Your task to perform on an android device: allow notifications from all sites in the chrome app Image 0: 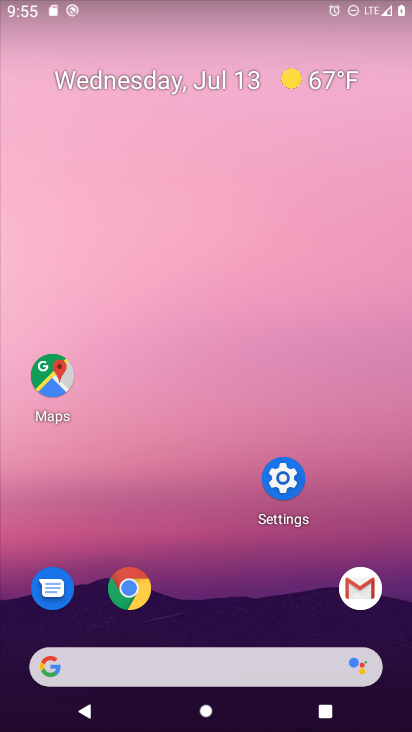
Step 0: click (130, 585)
Your task to perform on an android device: allow notifications from all sites in the chrome app Image 1: 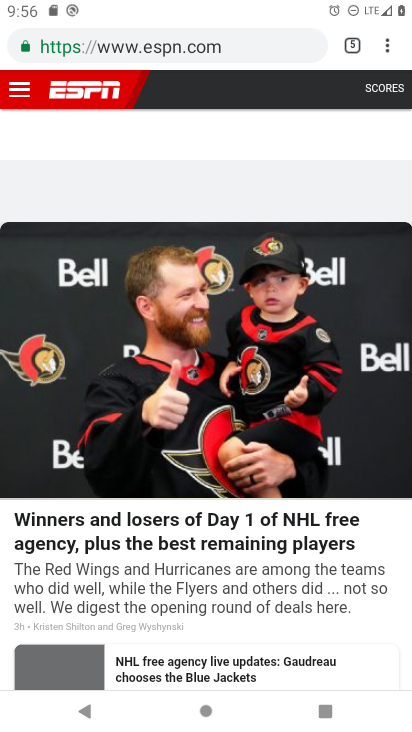
Step 1: click (384, 49)
Your task to perform on an android device: allow notifications from all sites in the chrome app Image 2: 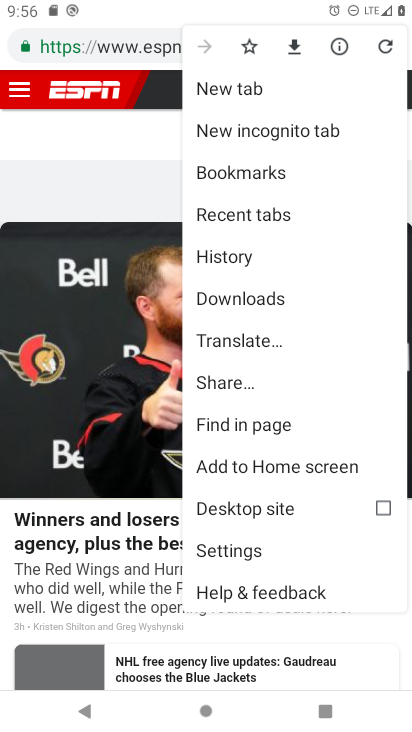
Step 2: click (237, 550)
Your task to perform on an android device: allow notifications from all sites in the chrome app Image 3: 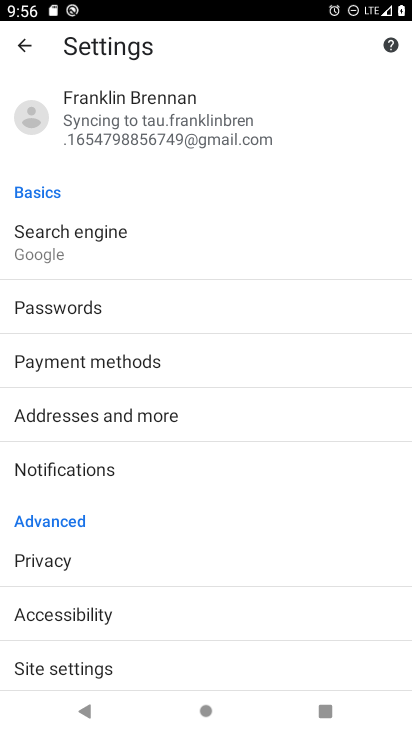
Step 3: click (52, 663)
Your task to perform on an android device: allow notifications from all sites in the chrome app Image 4: 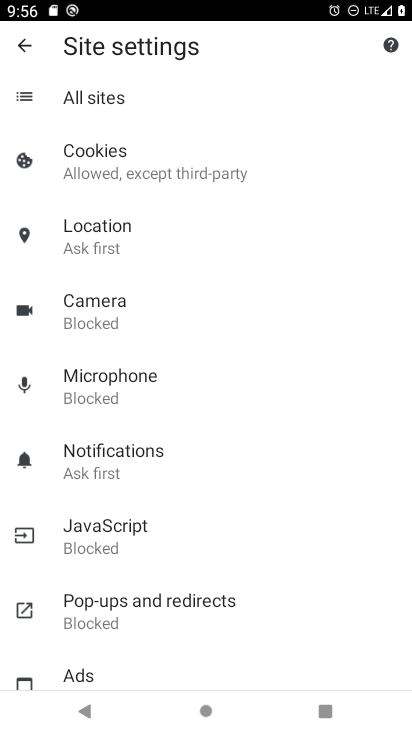
Step 4: click (77, 460)
Your task to perform on an android device: allow notifications from all sites in the chrome app Image 5: 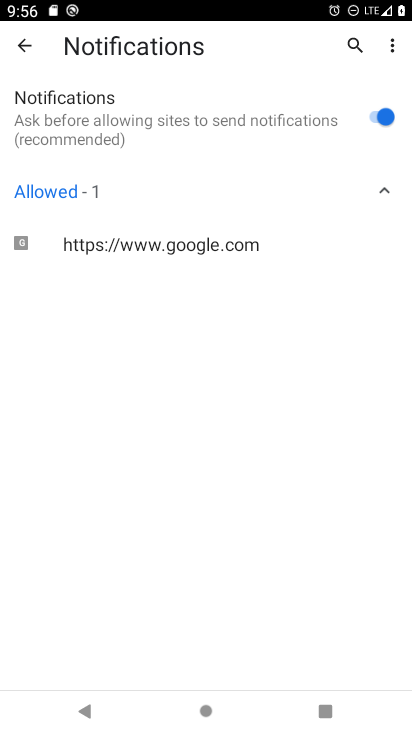
Step 5: click (380, 105)
Your task to perform on an android device: allow notifications from all sites in the chrome app Image 6: 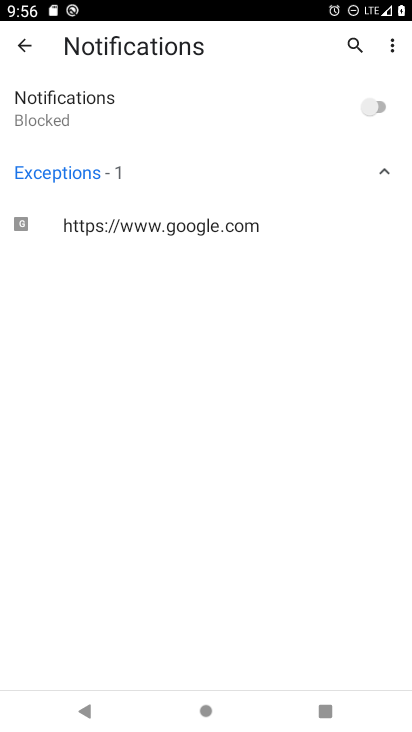
Step 6: click (366, 109)
Your task to perform on an android device: allow notifications from all sites in the chrome app Image 7: 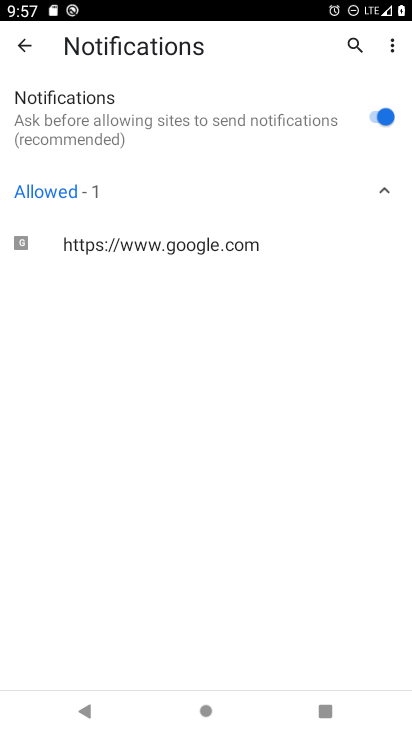
Step 7: task complete